Your task to perform on an android device: manage bookmarks in the chrome app Image 0: 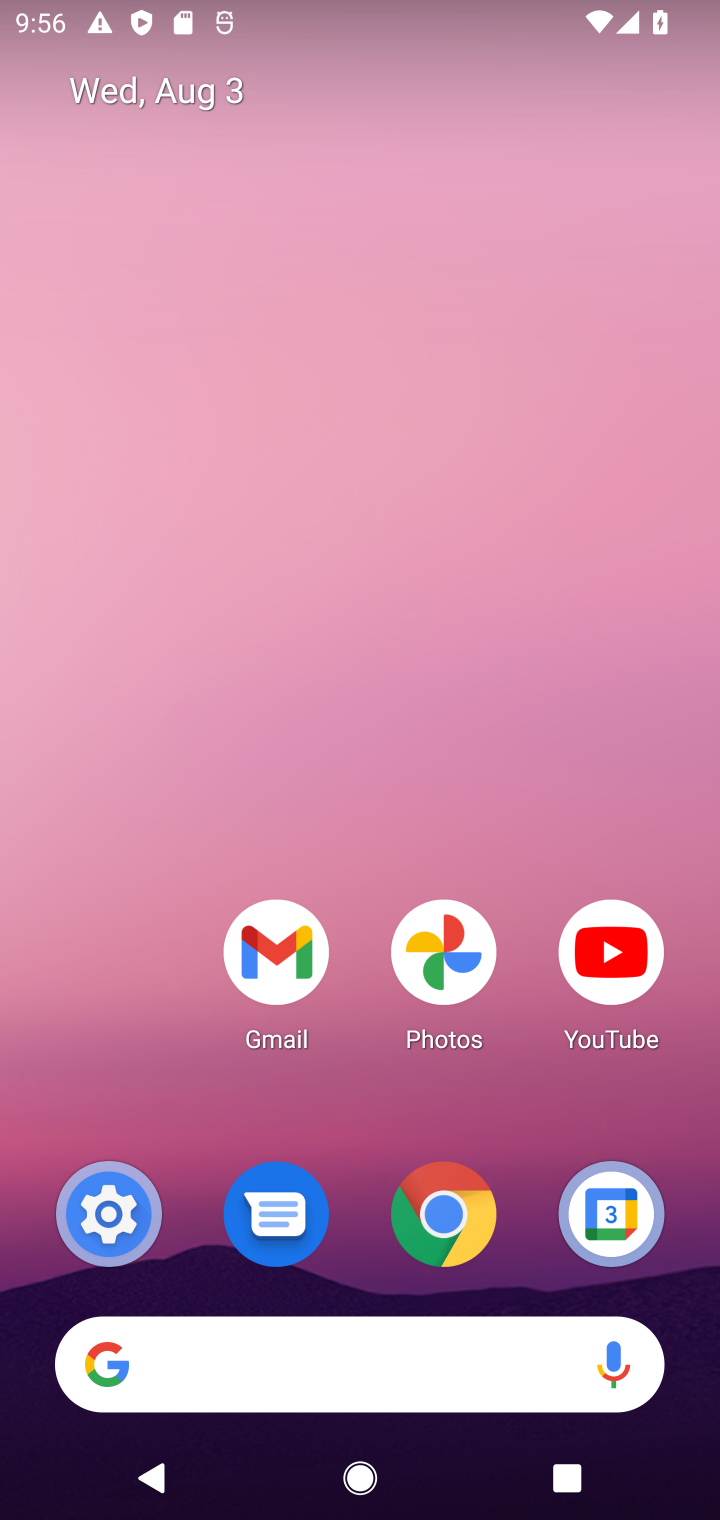
Step 0: press home button
Your task to perform on an android device: manage bookmarks in the chrome app Image 1: 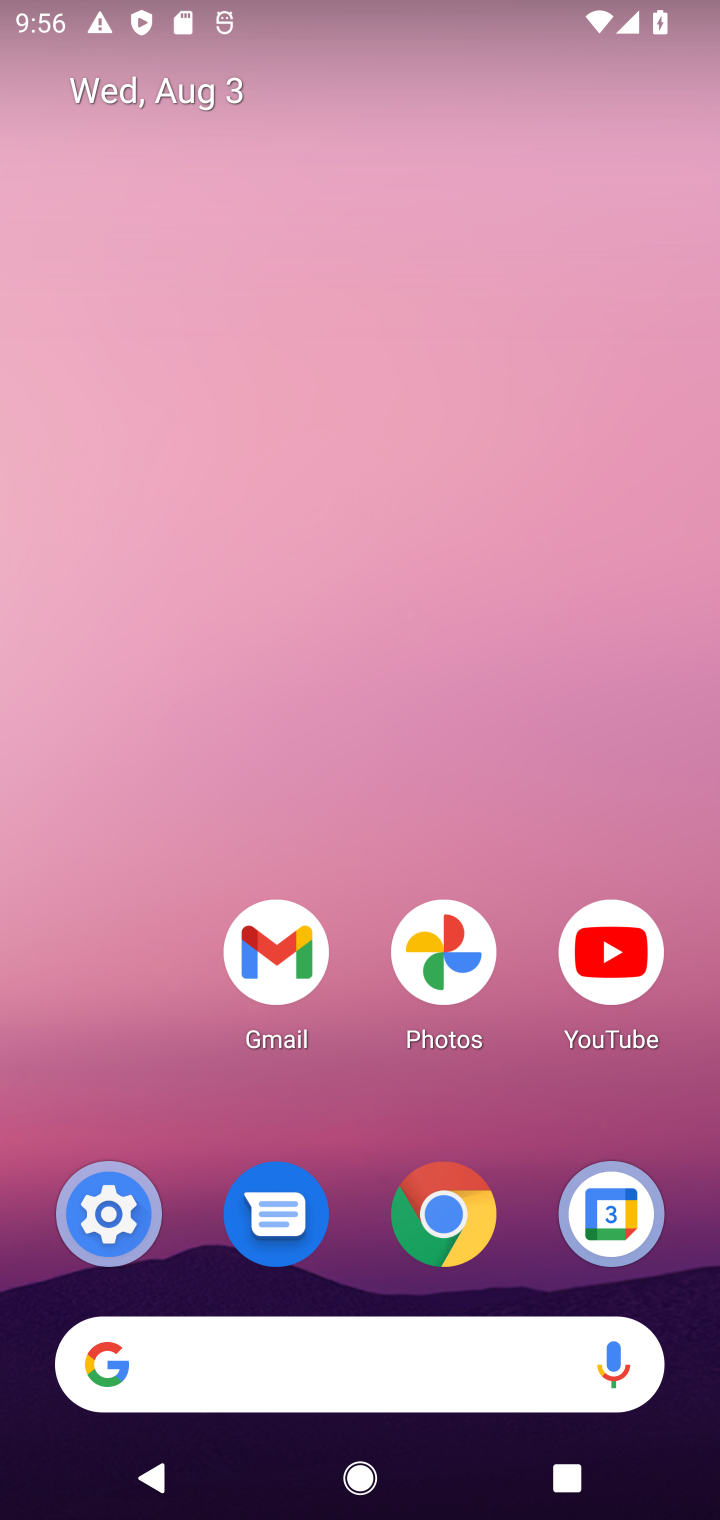
Step 1: click (414, 1252)
Your task to perform on an android device: manage bookmarks in the chrome app Image 2: 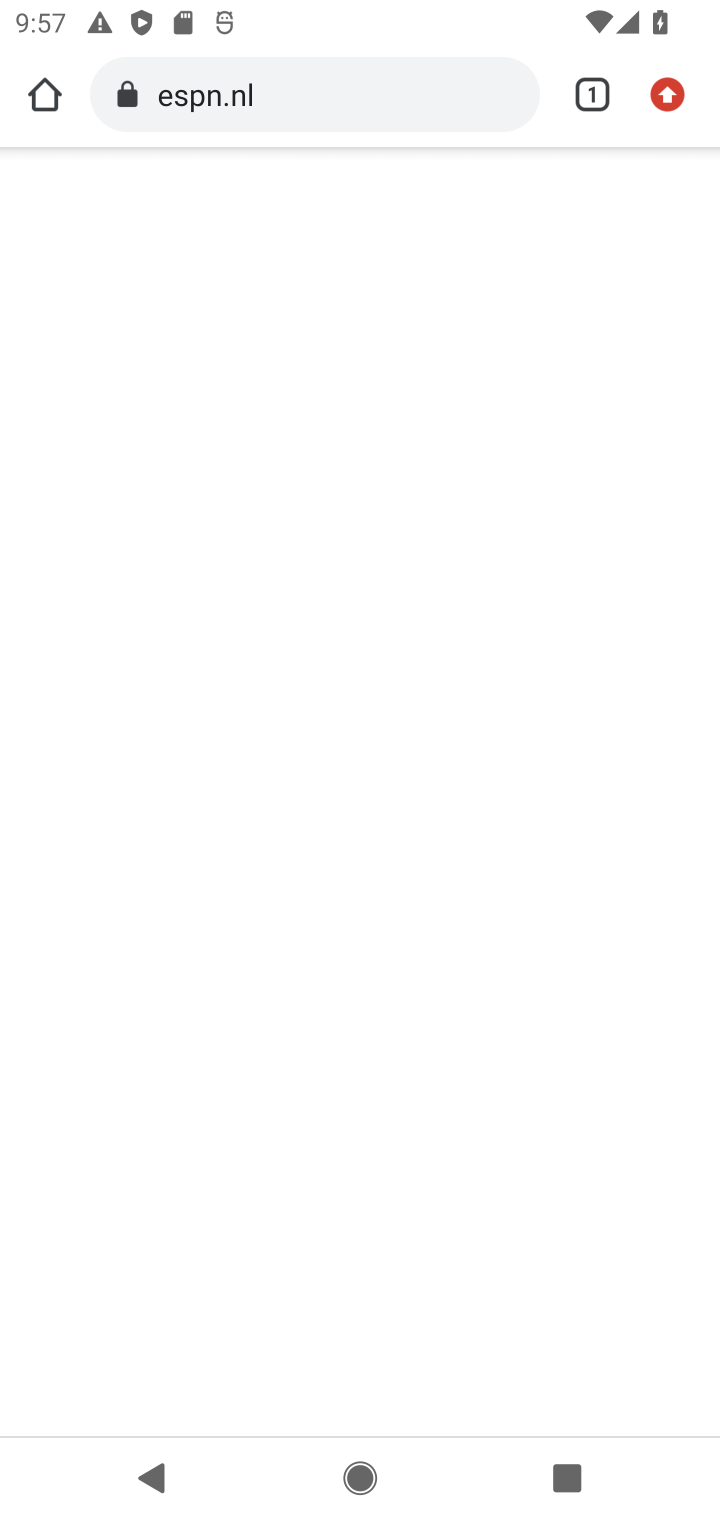
Step 2: drag from (669, 123) to (391, 698)
Your task to perform on an android device: manage bookmarks in the chrome app Image 3: 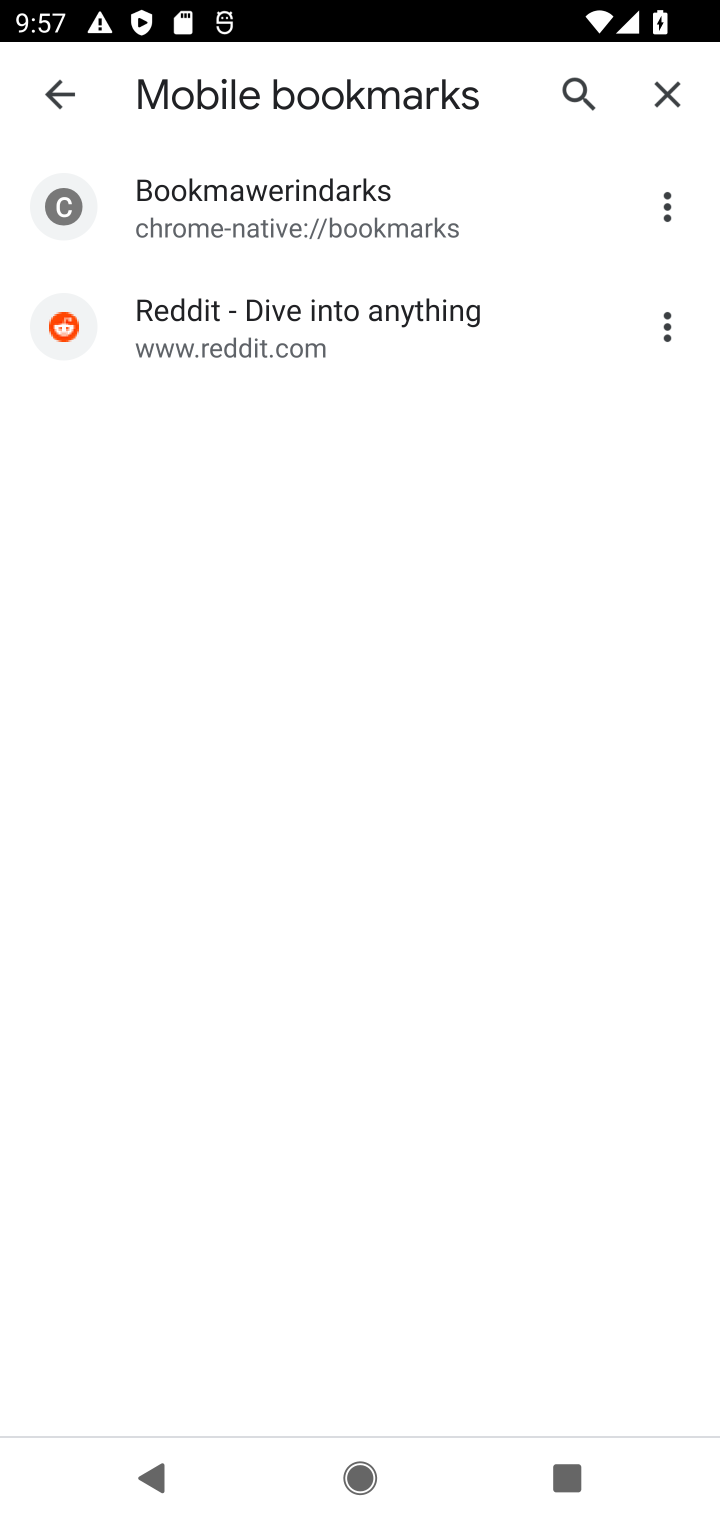
Step 3: click (671, 207)
Your task to perform on an android device: manage bookmarks in the chrome app Image 4: 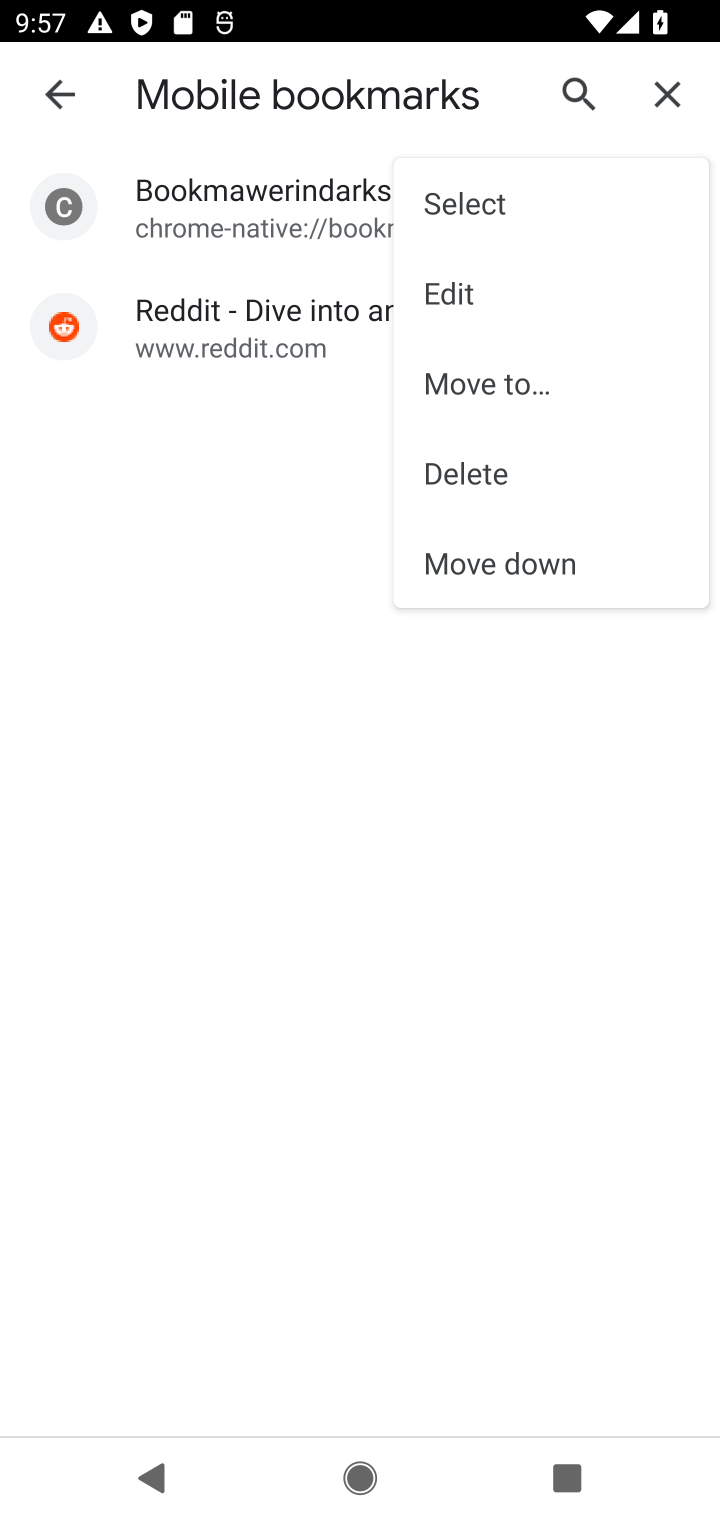
Step 4: click (441, 472)
Your task to perform on an android device: manage bookmarks in the chrome app Image 5: 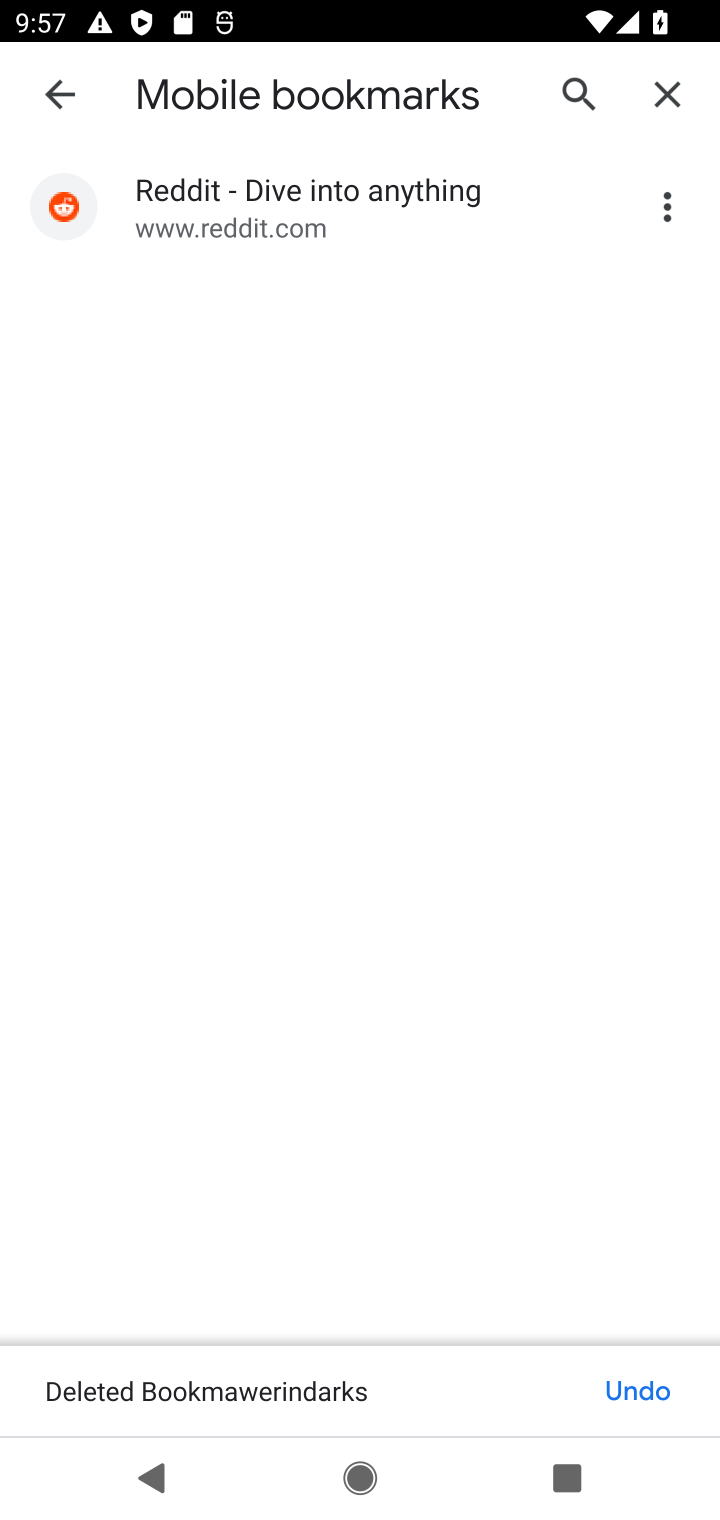
Step 5: task complete